Your task to perform on an android device: Open Google Chrome and open the bookmarks view Image 0: 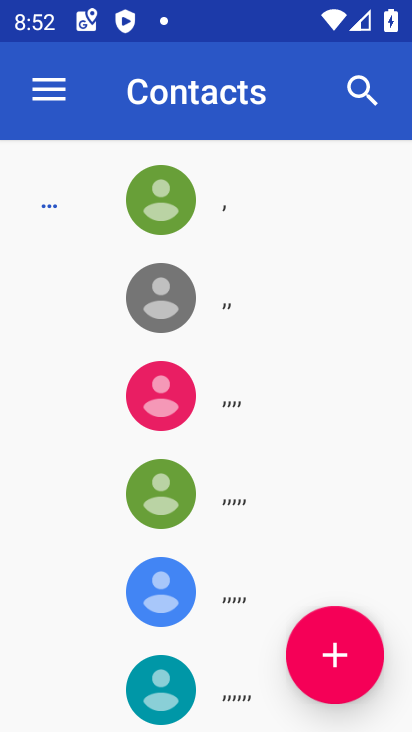
Step 0: press home button
Your task to perform on an android device: Open Google Chrome and open the bookmarks view Image 1: 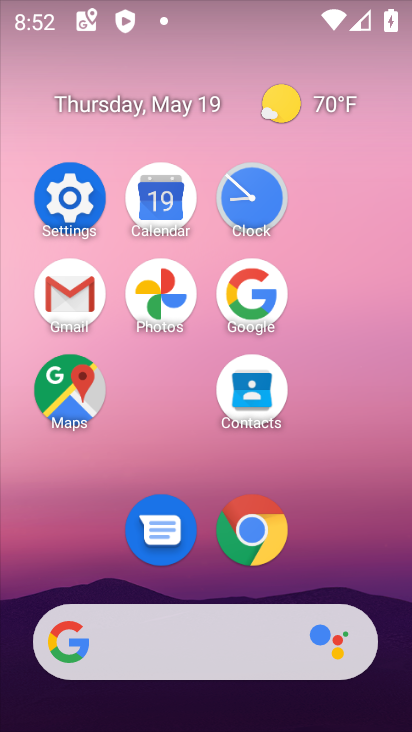
Step 1: click (230, 537)
Your task to perform on an android device: Open Google Chrome and open the bookmarks view Image 2: 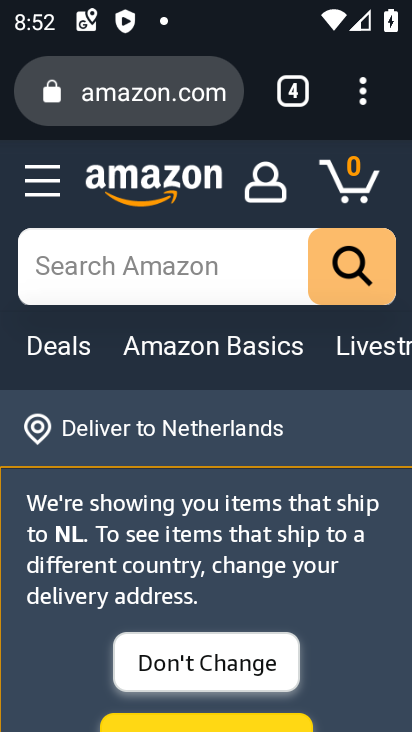
Step 2: click (360, 90)
Your task to perform on an android device: Open Google Chrome and open the bookmarks view Image 3: 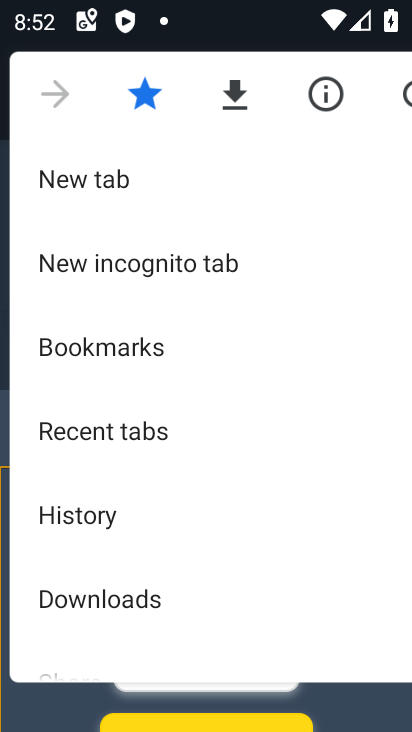
Step 3: click (133, 355)
Your task to perform on an android device: Open Google Chrome and open the bookmarks view Image 4: 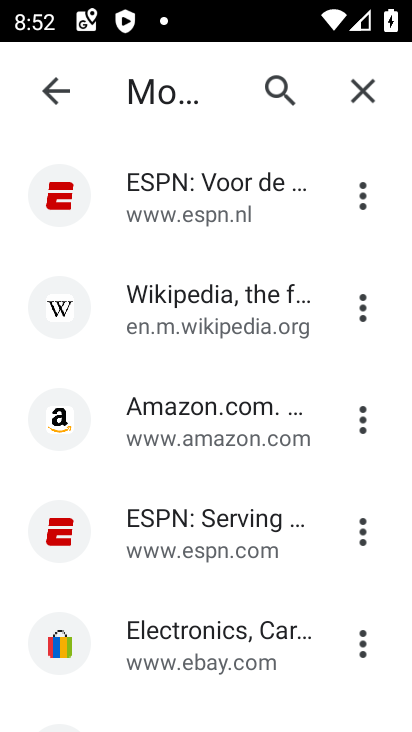
Step 4: task complete